Your task to perform on an android device: Go to Maps Image 0: 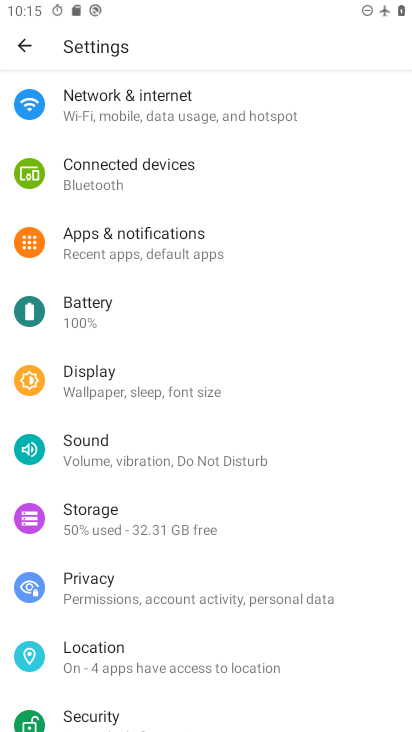
Step 0: press home button
Your task to perform on an android device: Go to Maps Image 1: 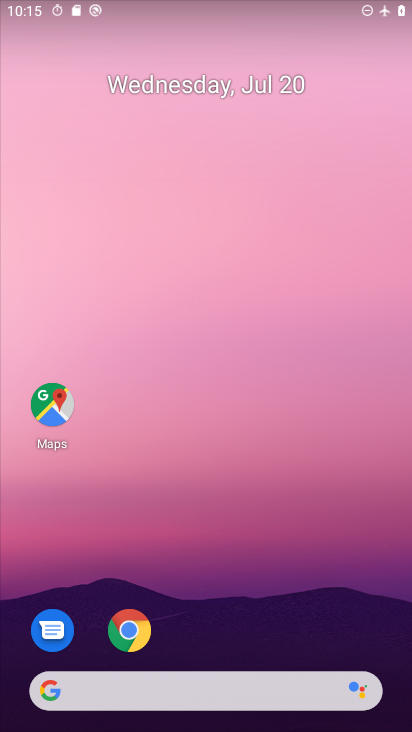
Step 1: drag from (264, 628) to (238, 145)
Your task to perform on an android device: Go to Maps Image 2: 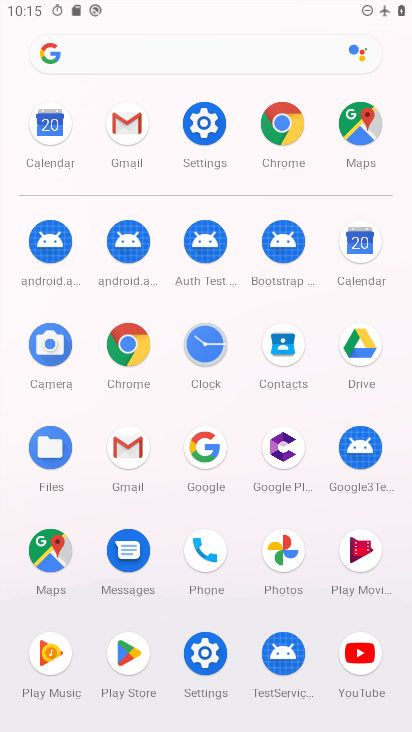
Step 2: drag from (194, 502) to (209, 369)
Your task to perform on an android device: Go to Maps Image 3: 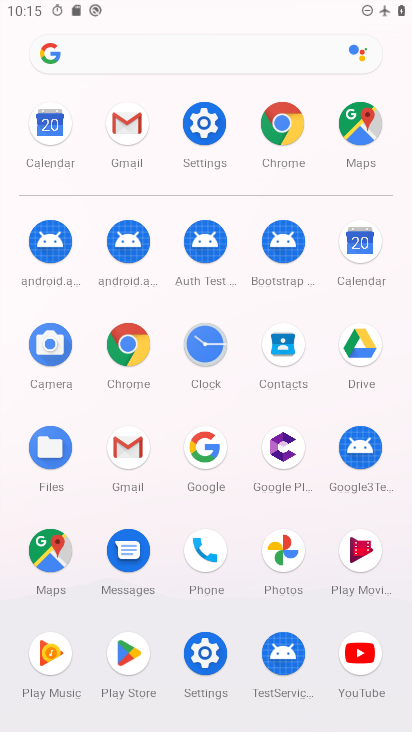
Step 3: click (55, 549)
Your task to perform on an android device: Go to Maps Image 4: 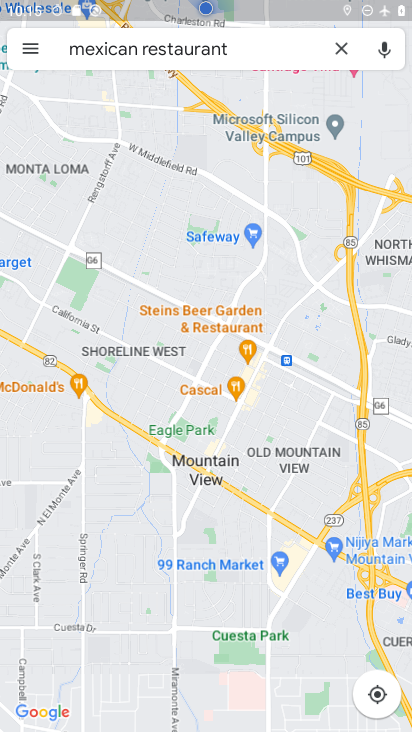
Step 4: task complete